Your task to perform on an android device: Find coffee shops on Maps Image 0: 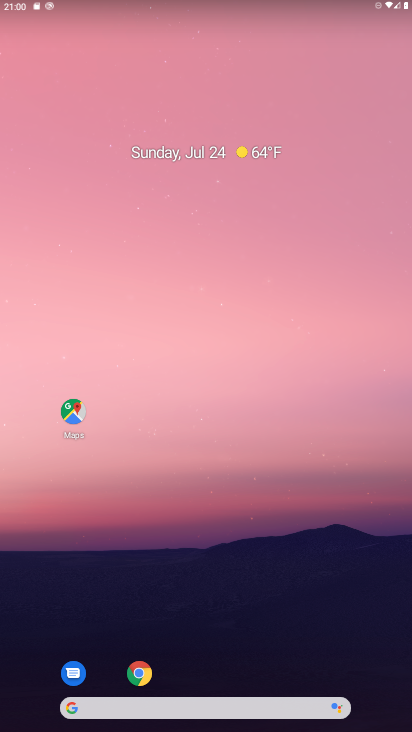
Step 0: click (77, 419)
Your task to perform on an android device: Find coffee shops on Maps Image 1: 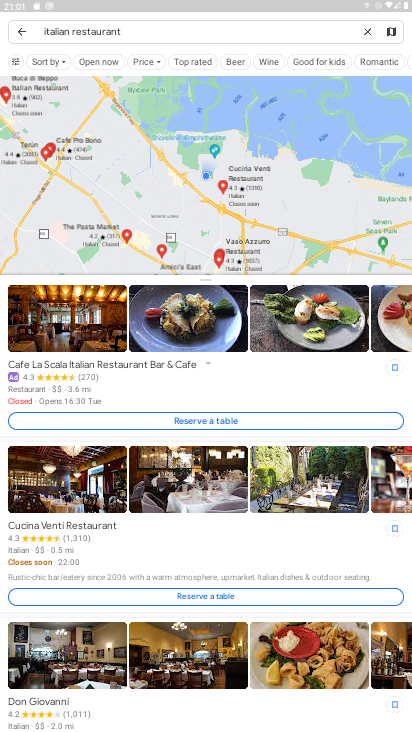
Step 1: click (366, 30)
Your task to perform on an android device: Find coffee shops on Maps Image 2: 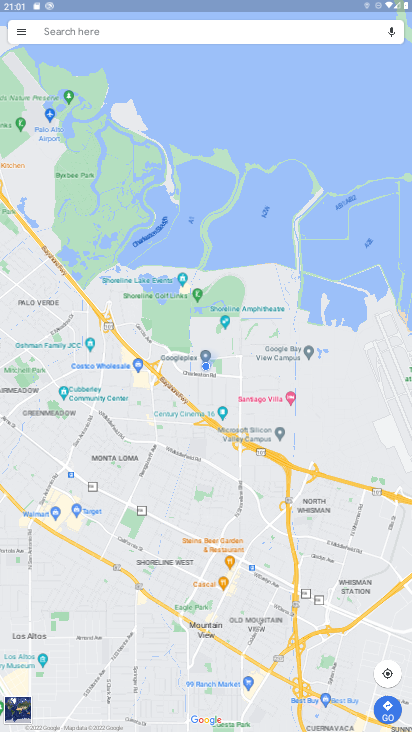
Step 2: click (330, 35)
Your task to perform on an android device: Find coffee shops on Maps Image 3: 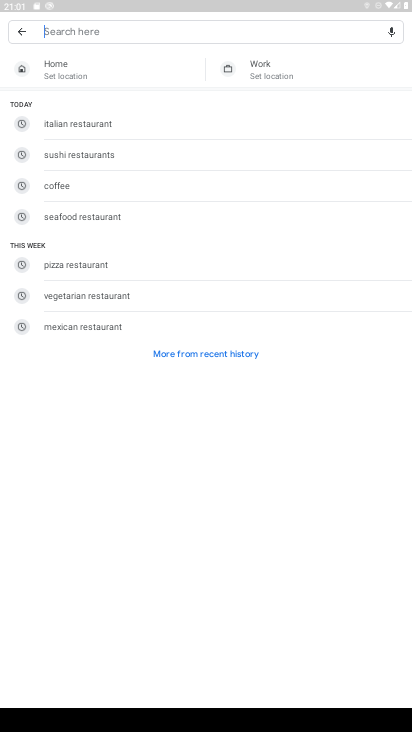
Step 3: click (115, 186)
Your task to perform on an android device: Find coffee shops on Maps Image 4: 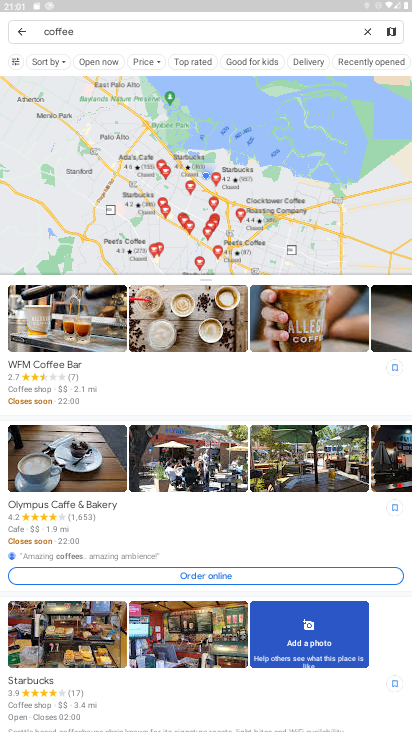
Step 4: task complete